Your task to perform on an android device: Search for a new grill on Home Depot Image 0: 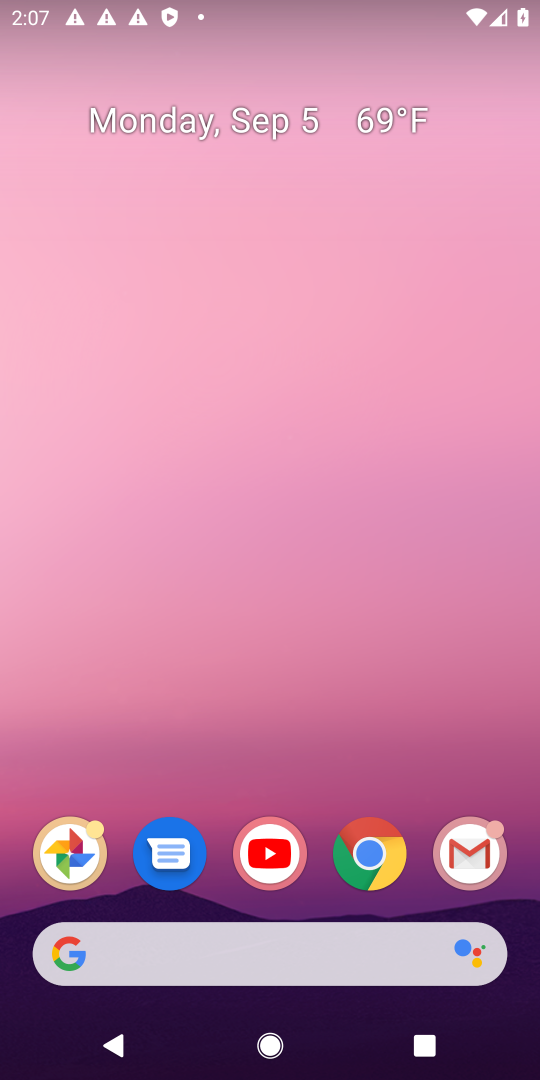
Step 0: drag from (227, 938) to (235, 190)
Your task to perform on an android device: Search for a new grill on Home Depot Image 1: 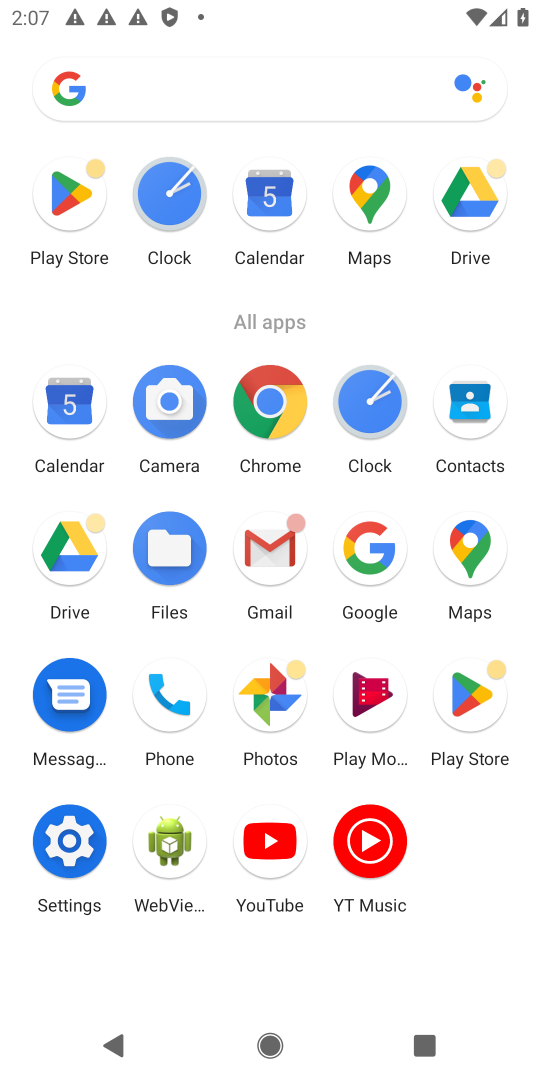
Step 1: click (369, 548)
Your task to perform on an android device: Search for a new grill on Home Depot Image 2: 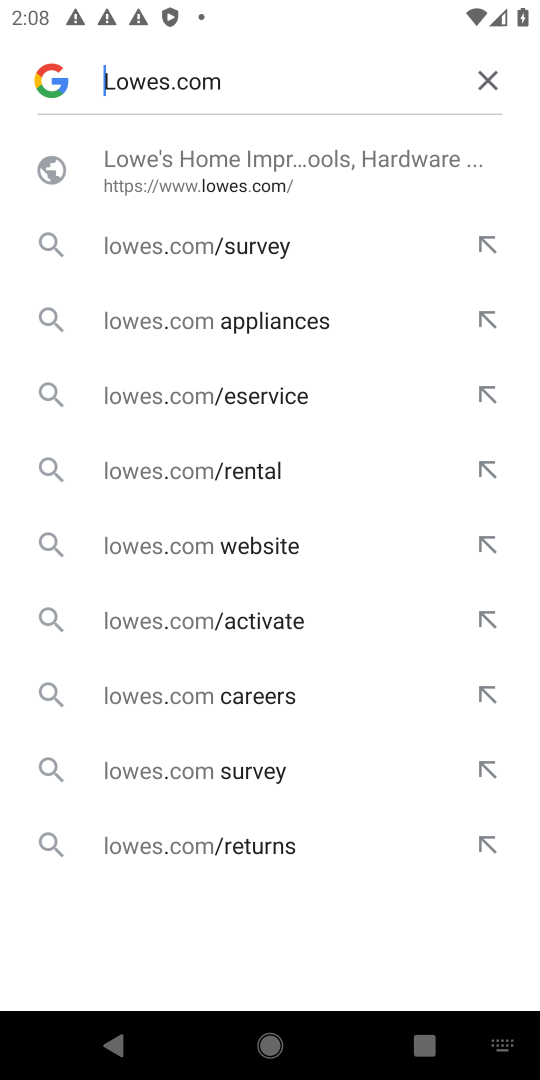
Step 2: click (496, 77)
Your task to perform on an android device: Search for a new grill on Home Depot Image 3: 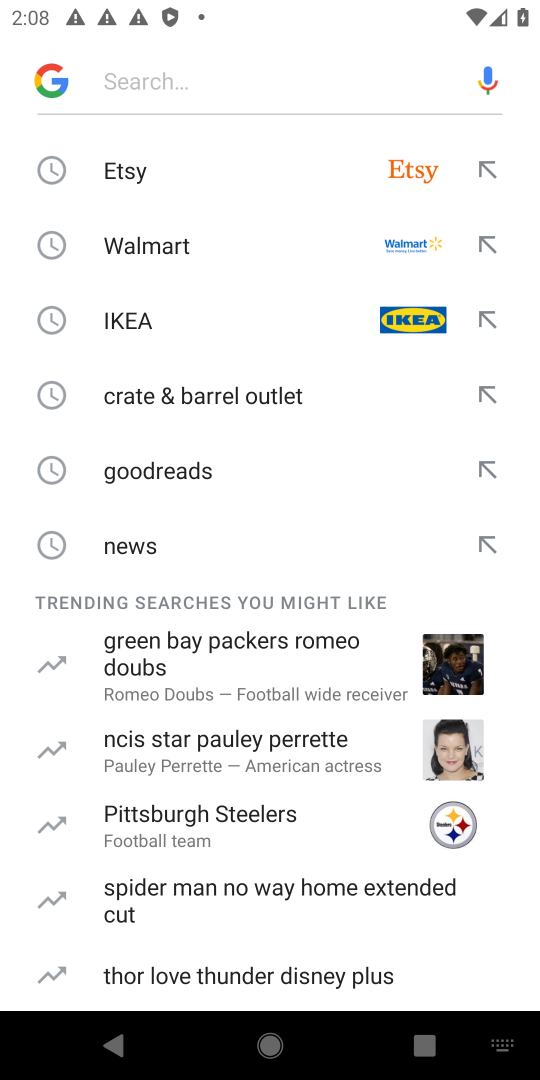
Step 3: type "Home Depot"
Your task to perform on an android device: Search for a new grill on Home Depot Image 4: 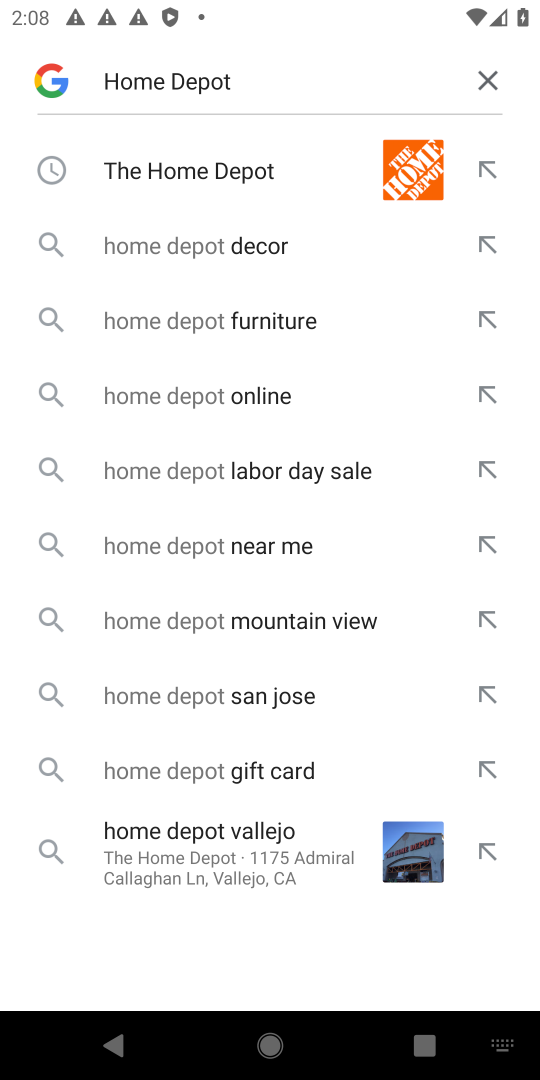
Step 4: click (237, 159)
Your task to perform on an android device: Search for a new grill on Home Depot Image 5: 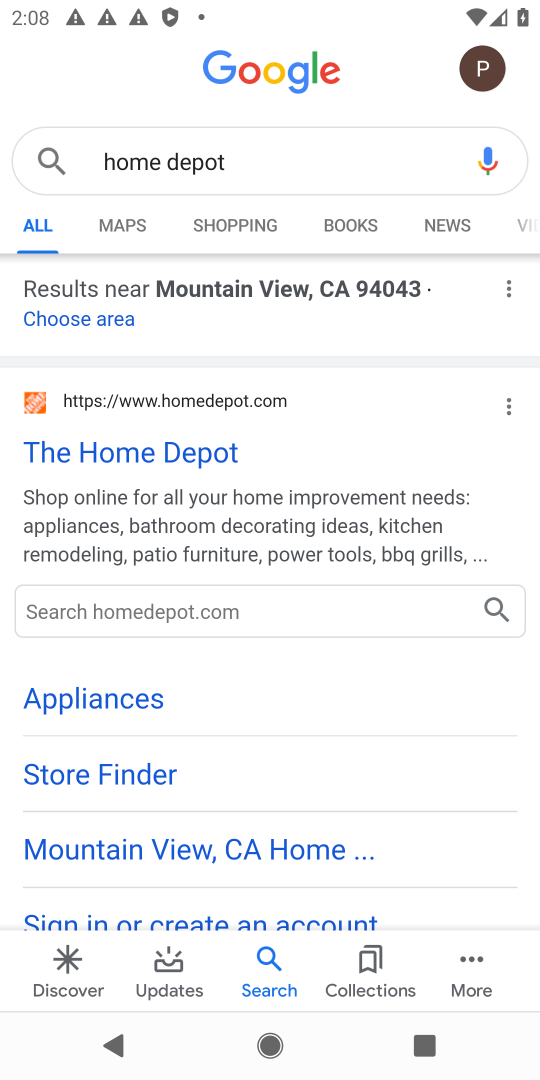
Step 5: click (203, 449)
Your task to perform on an android device: Search for a new grill on Home Depot Image 6: 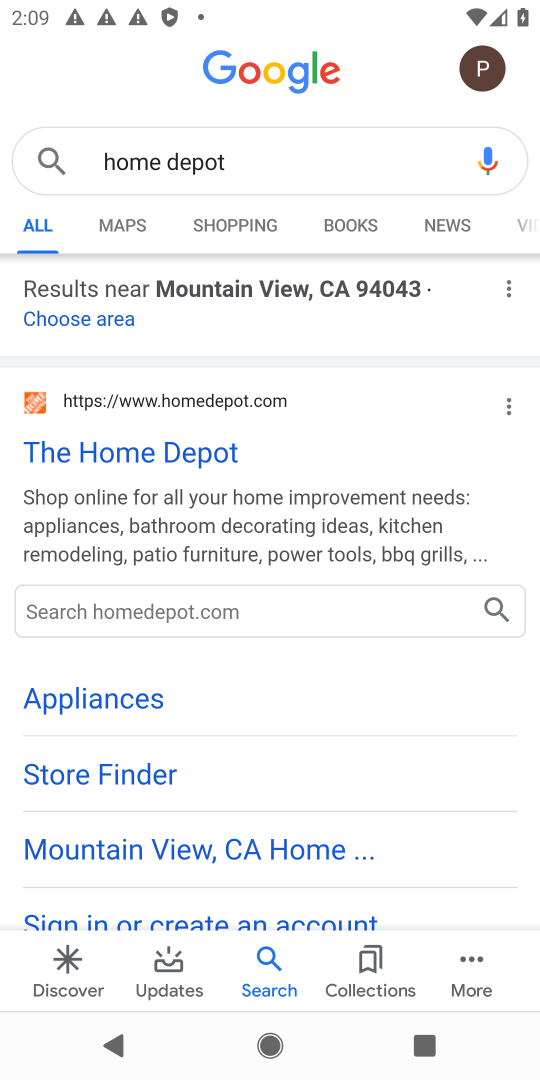
Step 6: click (168, 448)
Your task to perform on an android device: Search for a new grill on Home Depot Image 7: 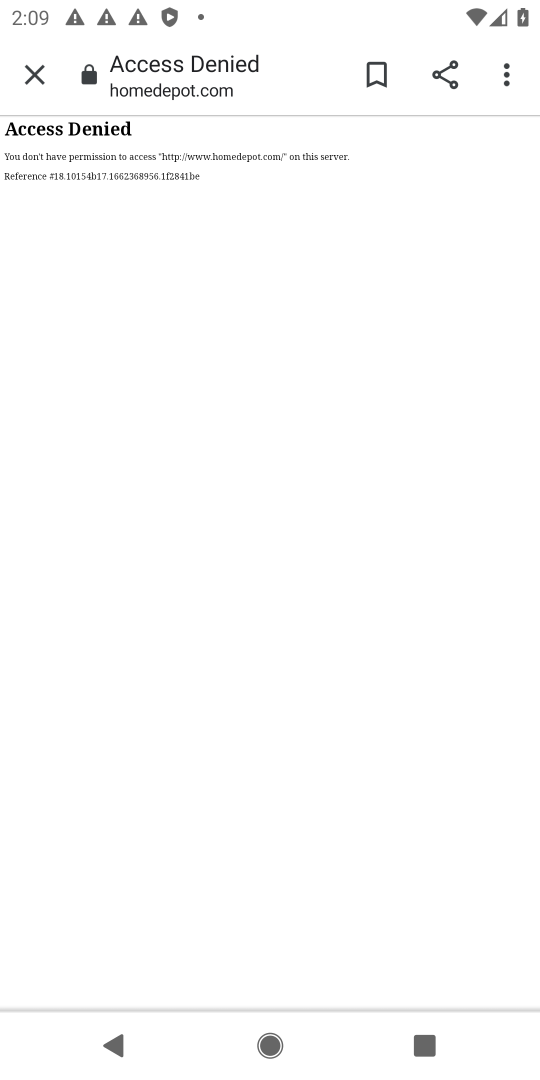
Step 7: task complete